Your task to perform on an android device: add a label to a message in the gmail app Image 0: 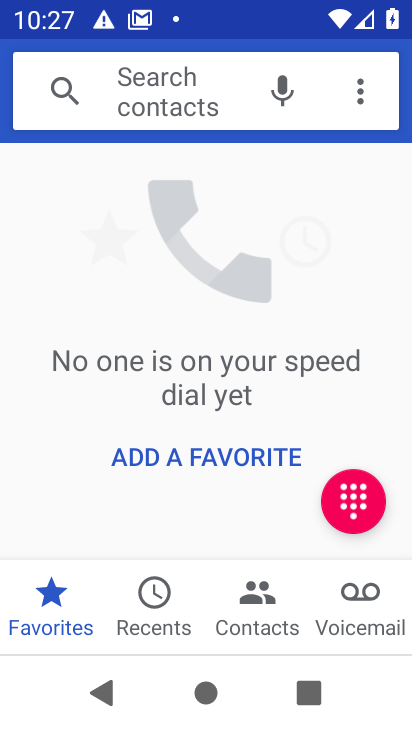
Step 0: press home button
Your task to perform on an android device: add a label to a message in the gmail app Image 1: 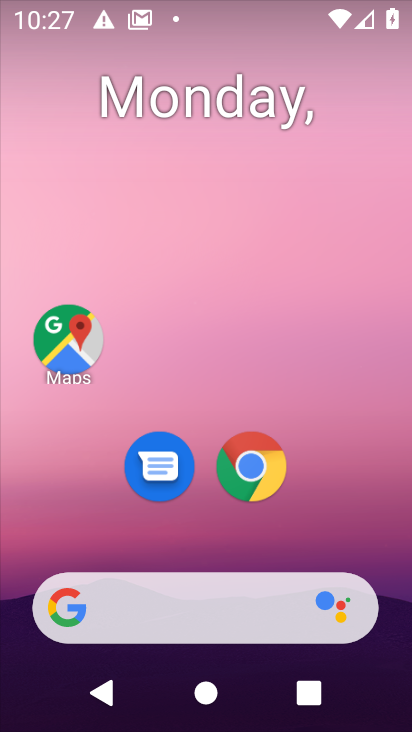
Step 1: drag from (347, 508) to (348, 60)
Your task to perform on an android device: add a label to a message in the gmail app Image 2: 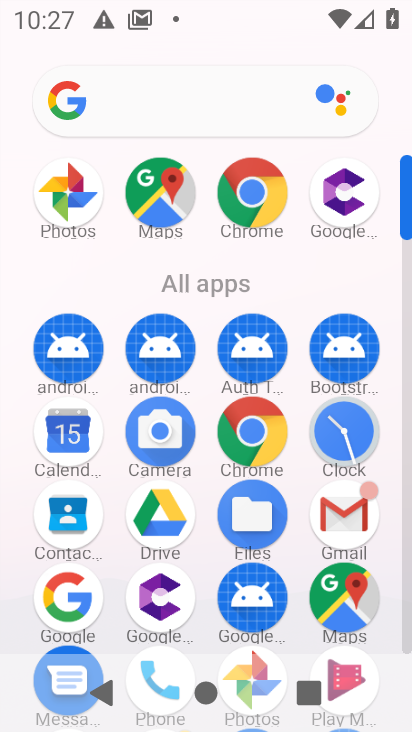
Step 2: click (353, 504)
Your task to perform on an android device: add a label to a message in the gmail app Image 3: 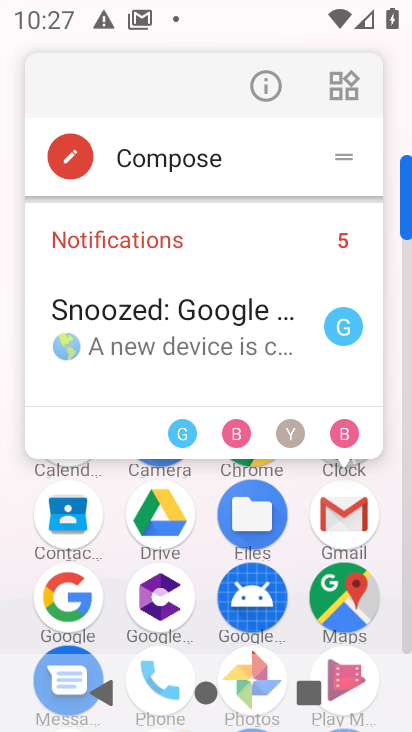
Step 3: click (345, 519)
Your task to perform on an android device: add a label to a message in the gmail app Image 4: 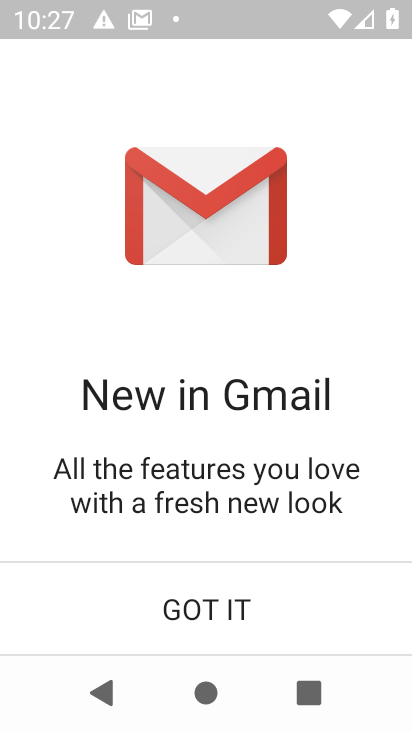
Step 4: click (208, 605)
Your task to perform on an android device: add a label to a message in the gmail app Image 5: 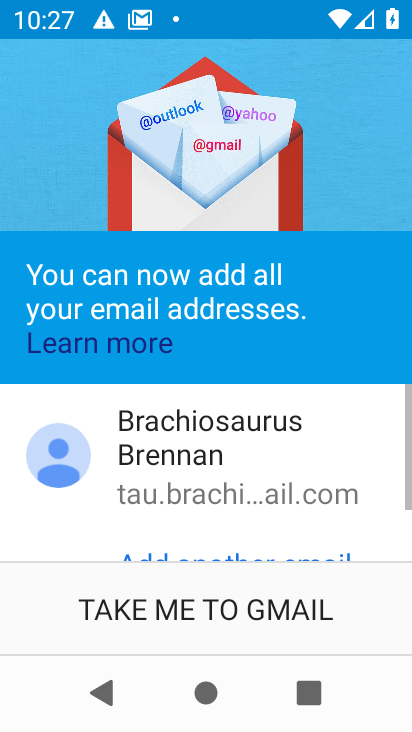
Step 5: click (208, 605)
Your task to perform on an android device: add a label to a message in the gmail app Image 6: 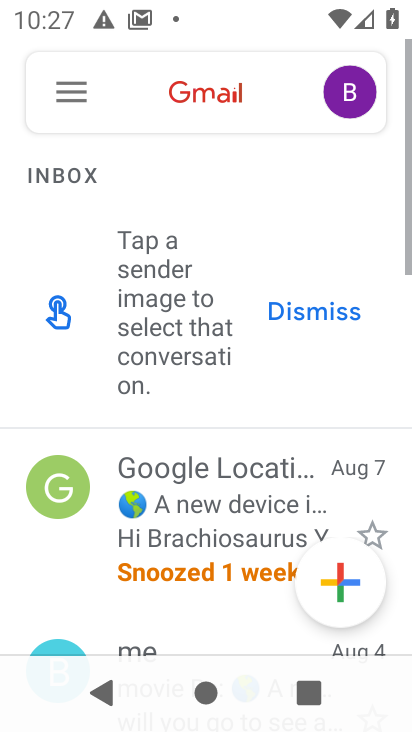
Step 6: drag from (208, 605) to (192, 273)
Your task to perform on an android device: add a label to a message in the gmail app Image 7: 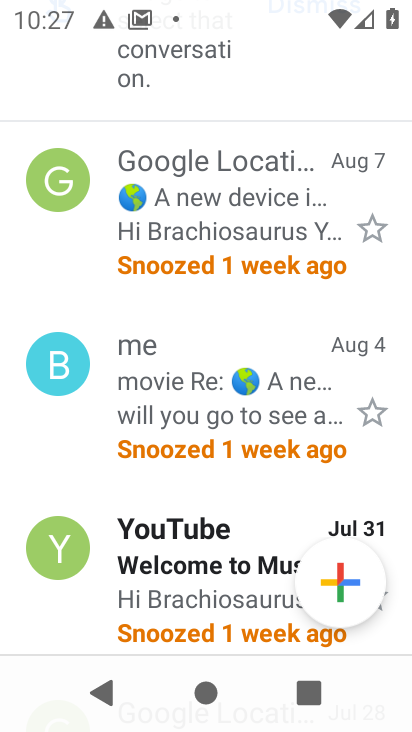
Step 7: drag from (228, 564) to (205, 156)
Your task to perform on an android device: add a label to a message in the gmail app Image 8: 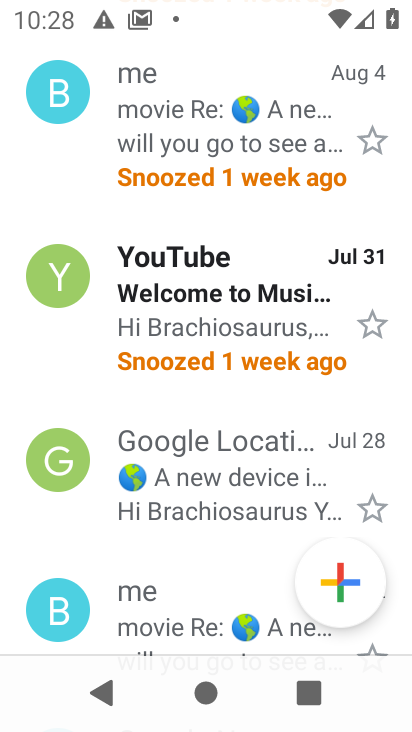
Step 8: click (85, 85)
Your task to perform on an android device: add a label to a message in the gmail app Image 9: 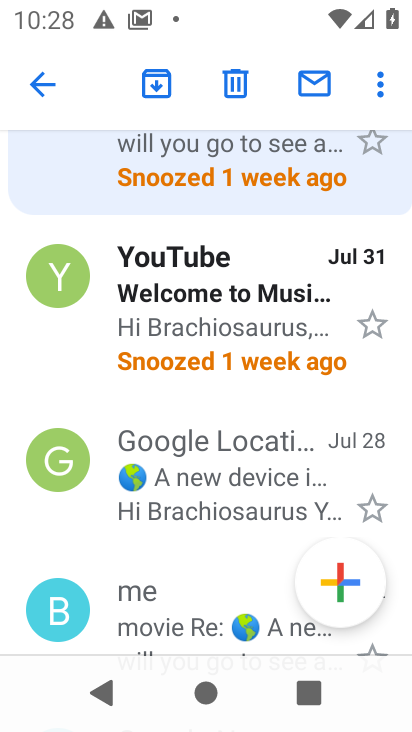
Step 9: click (374, 95)
Your task to perform on an android device: add a label to a message in the gmail app Image 10: 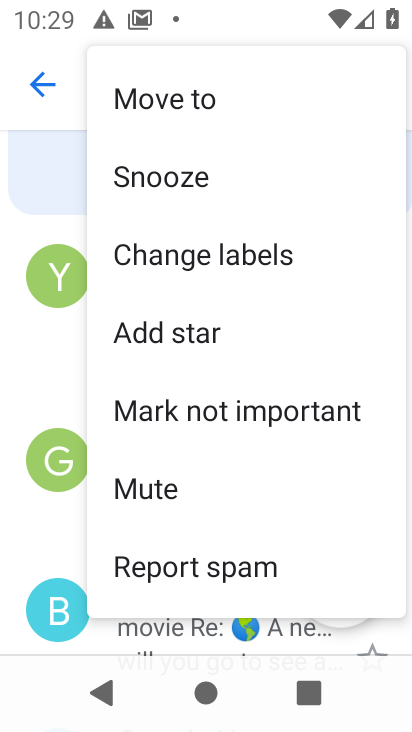
Step 10: click (408, 223)
Your task to perform on an android device: add a label to a message in the gmail app Image 11: 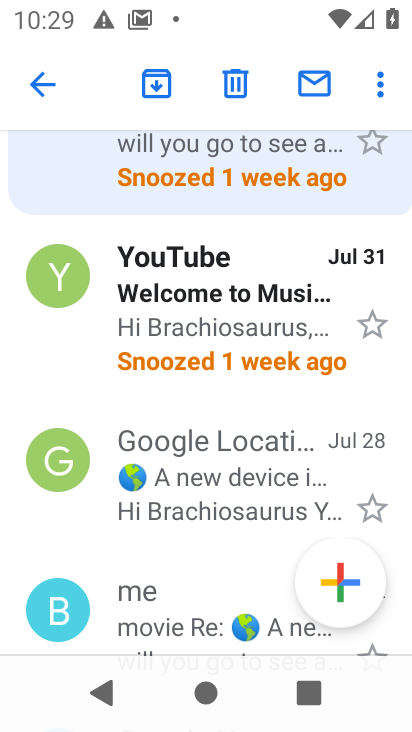
Step 11: task complete